Your task to perform on an android device: Open ESPN.com Image 0: 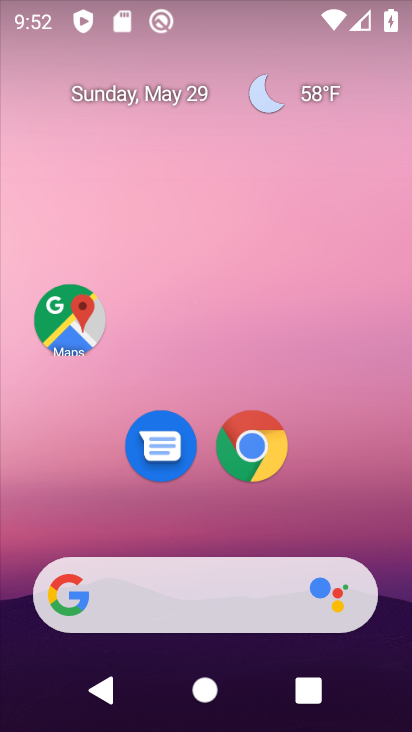
Step 0: click (258, 441)
Your task to perform on an android device: Open ESPN.com Image 1: 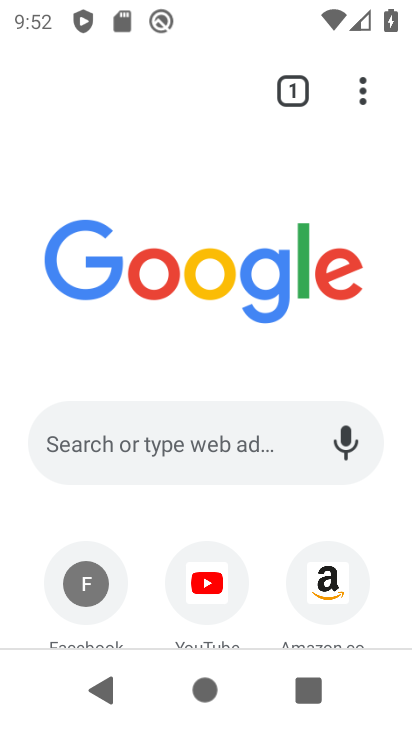
Step 1: drag from (139, 629) to (161, 201)
Your task to perform on an android device: Open ESPN.com Image 2: 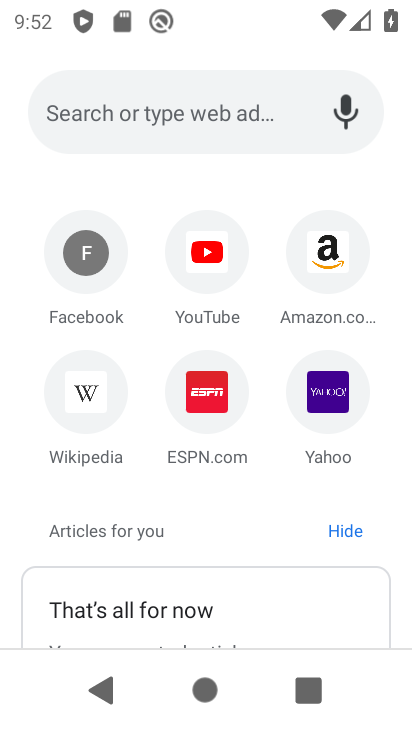
Step 2: click (198, 400)
Your task to perform on an android device: Open ESPN.com Image 3: 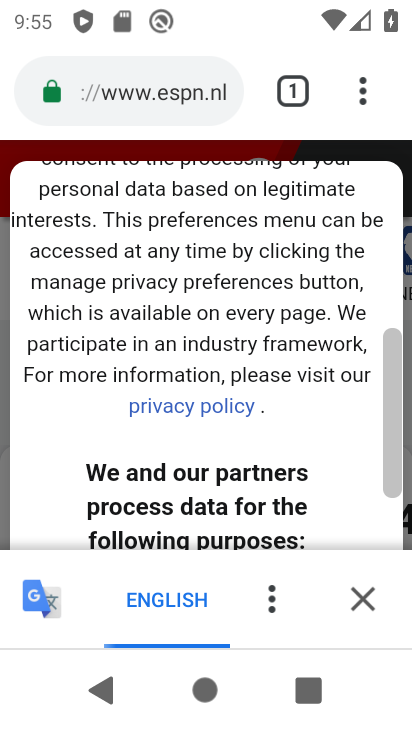
Step 3: task complete